Your task to perform on an android device: find photos in the google photos app Image 0: 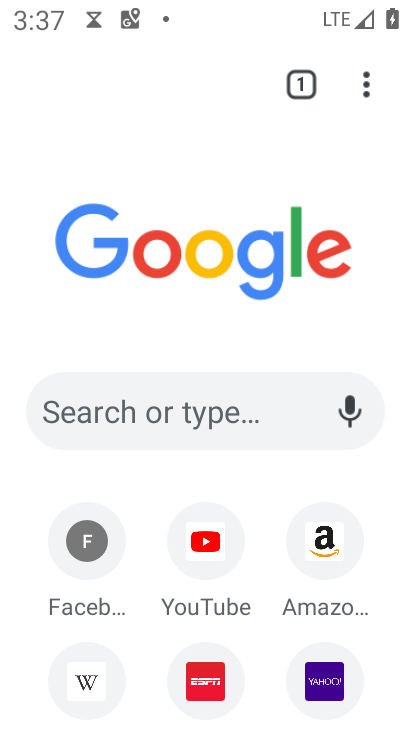
Step 0: press home button
Your task to perform on an android device: find photos in the google photos app Image 1: 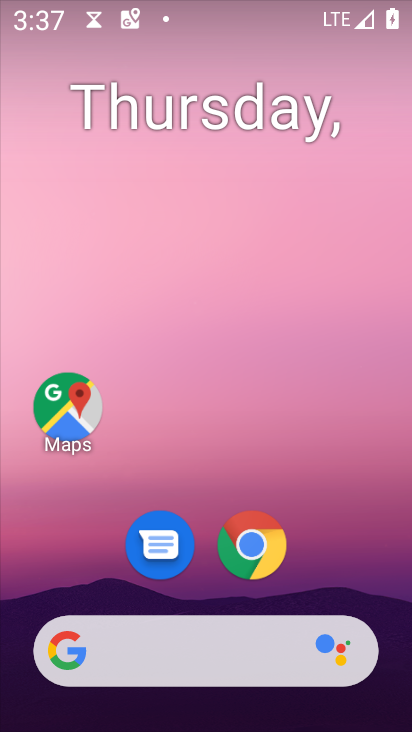
Step 1: drag from (331, 517) to (337, 37)
Your task to perform on an android device: find photos in the google photos app Image 2: 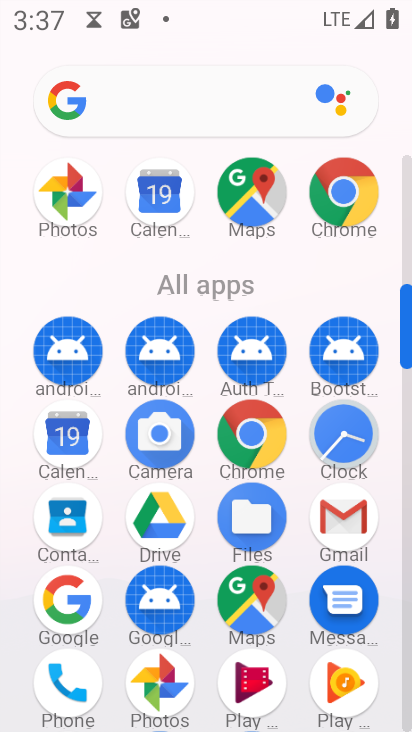
Step 2: click (74, 199)
Your task to perform on an android device: find photos in the google photos app Image 3: 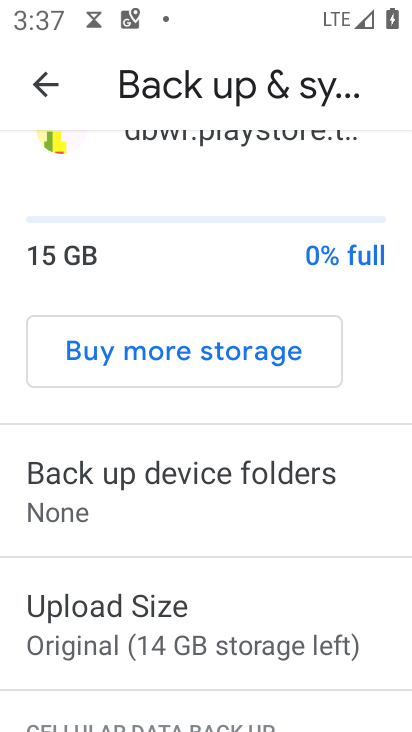
Step 3: click (39, 91)
Your task to perform on an android device: find photos in the google photos app Image 4: 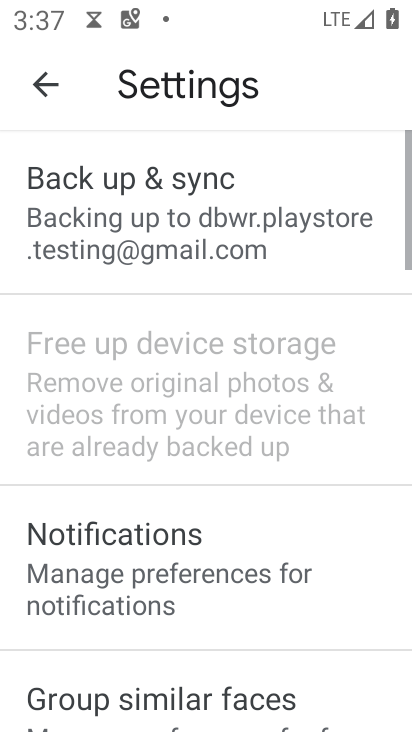
Step 4: click (39, 89)
Your task to perform on an android device: find photos in the google photos app Image 5: 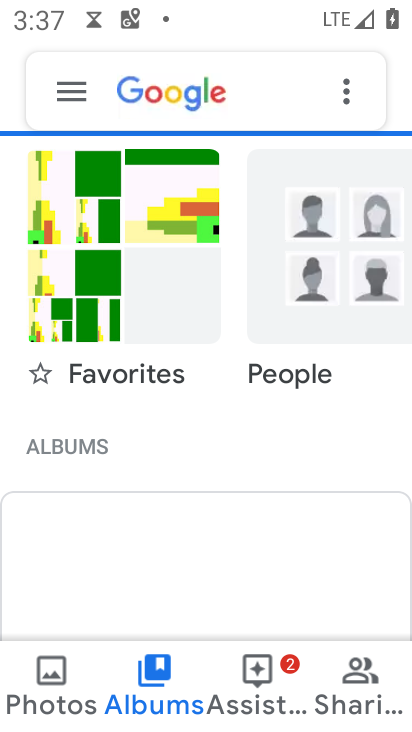
Step 5: click (53, 678)
Your task to perform on an android device: find photos in the google photos app Image 6: 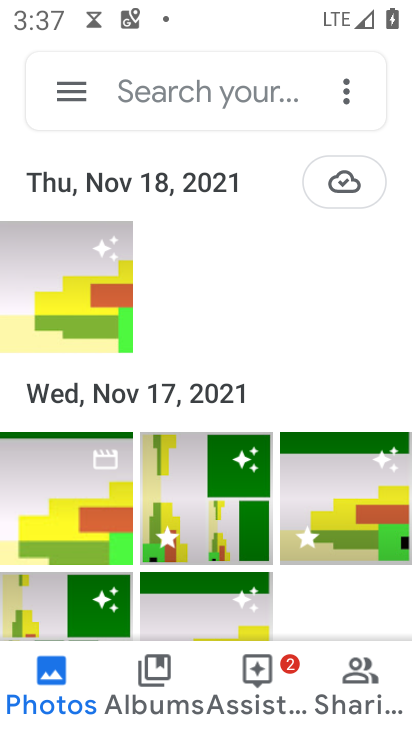
Step 6: task complete